Your task to perform on an android device: change your default location settings in chrome Image 0: 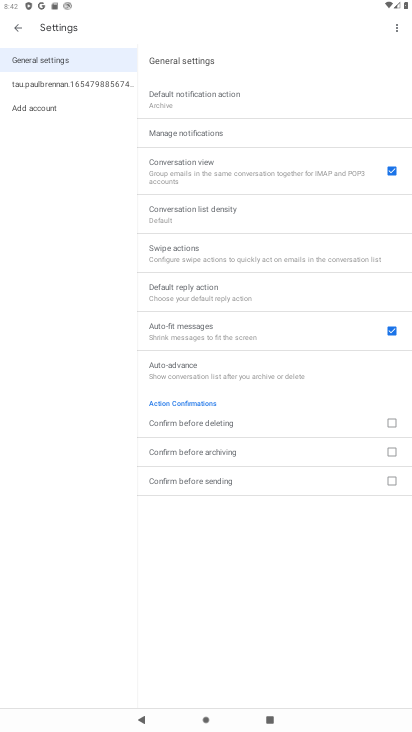
Step 0: press home button
Your task to perform on an android device: change your default location settings in chrome Image 1: 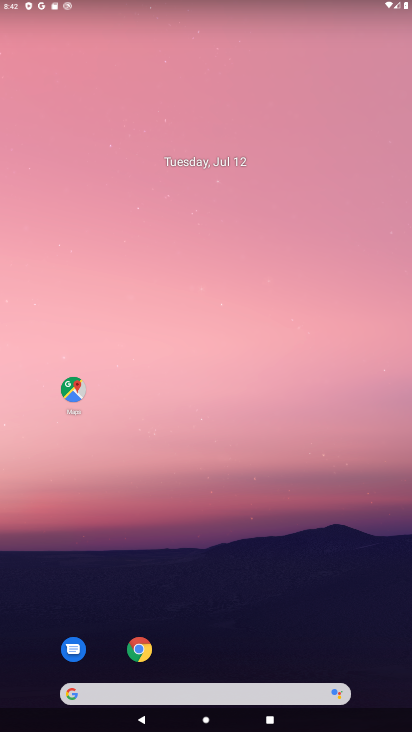
Step 1: drag from (277, 636) to (206, 284)
Your task to perform on an android device: change your default location settings in chrome Image 2: 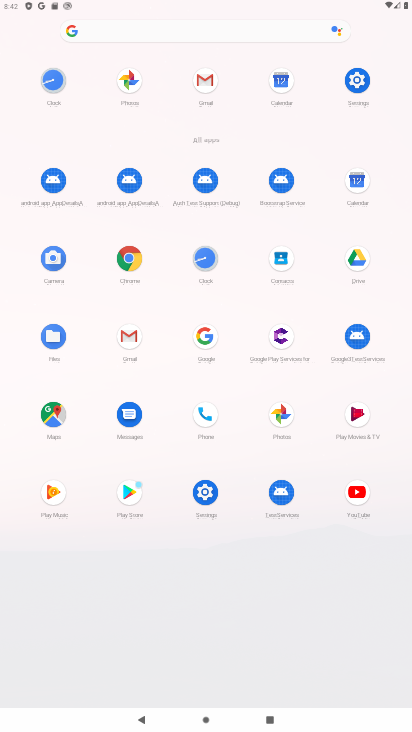
Step 2: click (120, 277)
Your task to perform on an android device: change your default location settings in chrome Image 3: 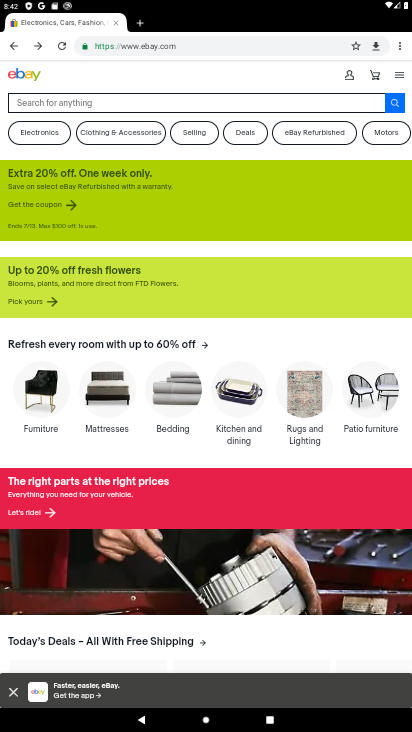
Step 3: click (397, 49)
Your task to perform on an android device: change your default location settings in chrome Image 4: 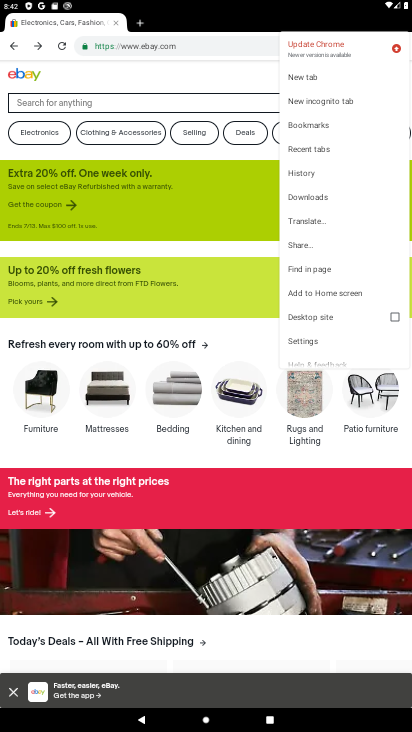
Step 4: click (311, 337)
Your task to perform on an android device: change your default location settings in chrome Image 5: 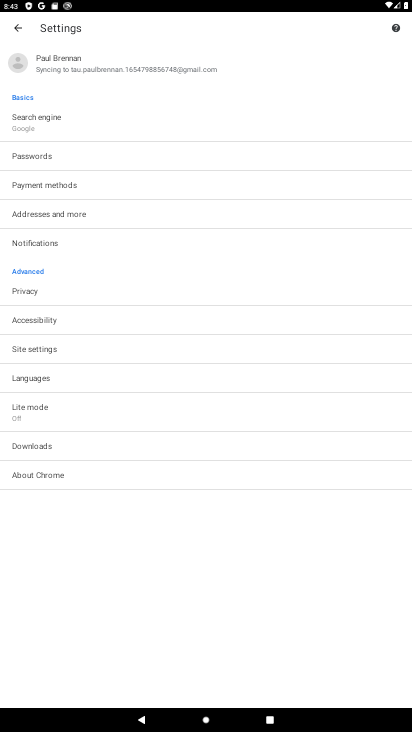
Step 5: click (150, 206)
Your task to perform on an android device: change your default location settings in chrome Image 6: 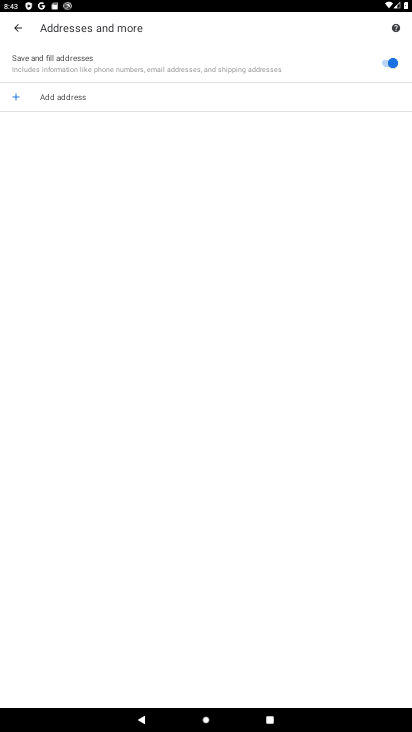
Step 6: task complete